Your task to perform on an android device: Go to Android settings Image 0: 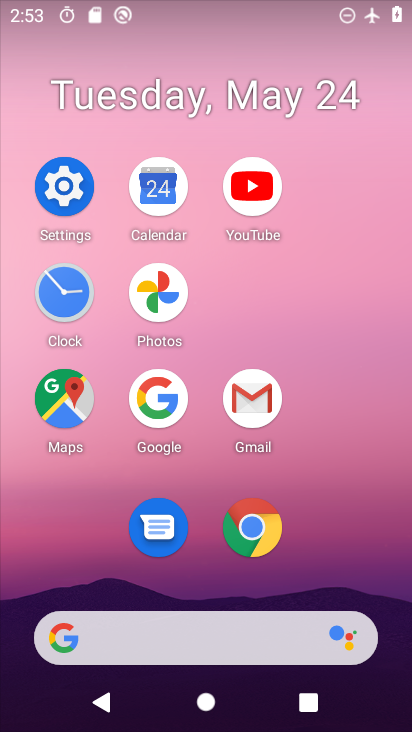
Step 0: click (81, 175)
Your task to perform on an android device: Go to Android settings Image 1: 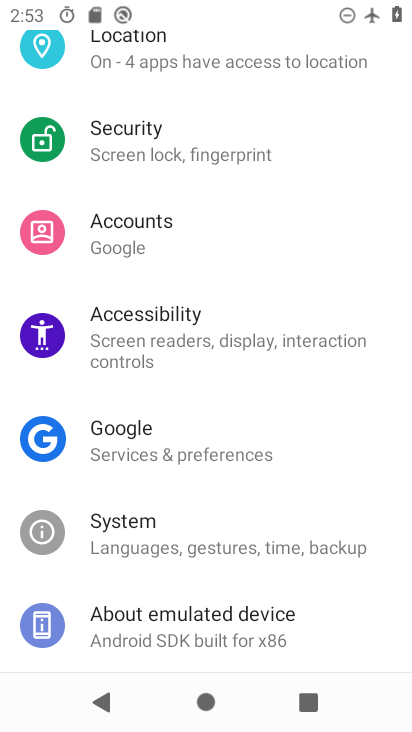
Step 1: task complete